Your task to perform on an android device: Play the last video I watched on Youtube Image 0: 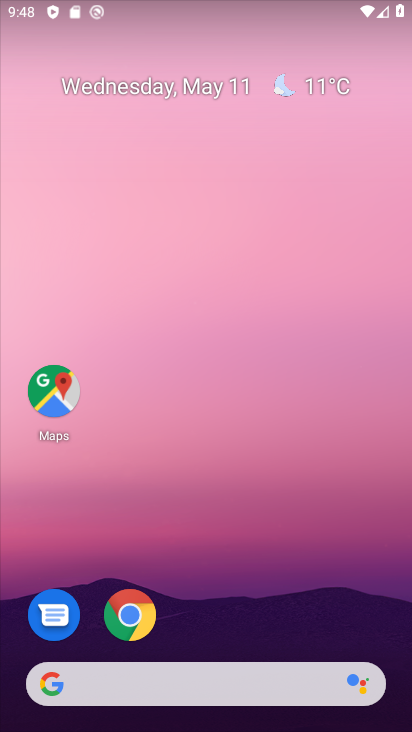
Step 0: drag from (271, 511) to (226, 138)
Your task to perform on an android device: Play the last video I watched on Youtube Image 1: 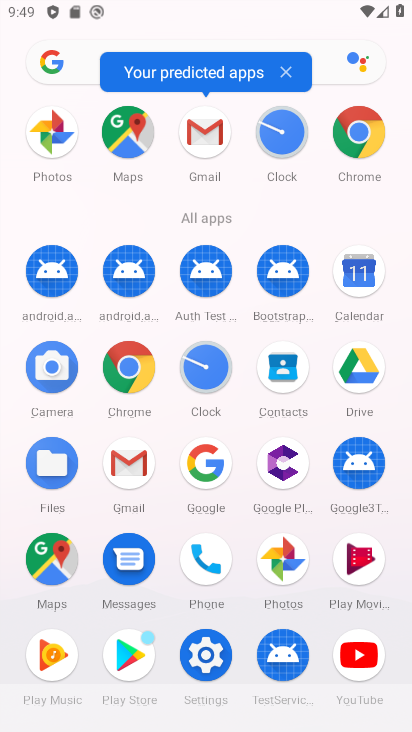
Step 1: click (357, 656)
Your task to perform on an android device: Play the last video I watched on Youtube Image 2: 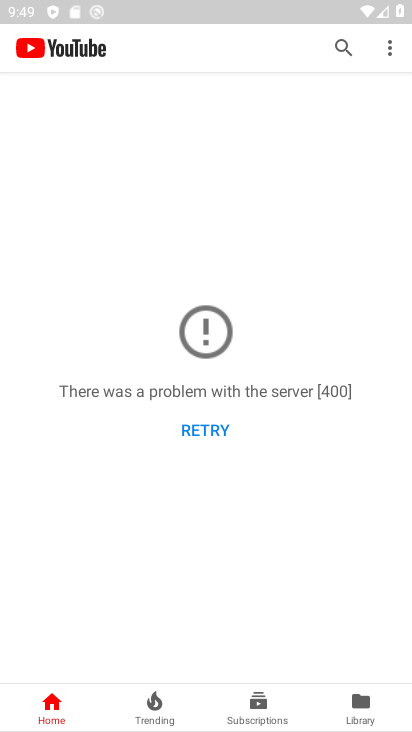
Step 2: click (359, 695)
Your task to perform on an android device: Play the last video I watched on Youtube Image 3: 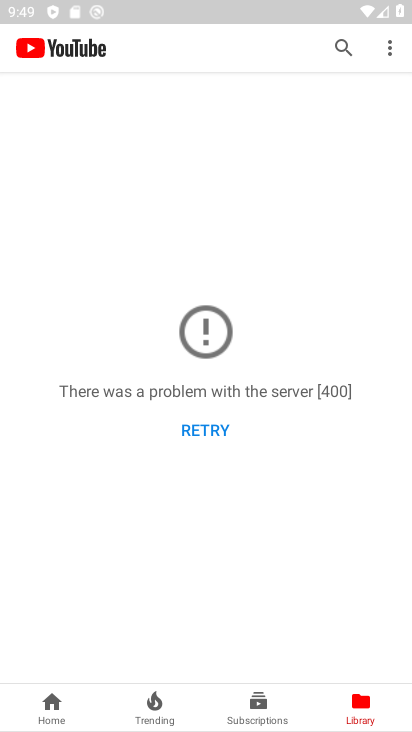
Step 3: task complete